Your task to perform on an android device: Open notification settings Image 0: 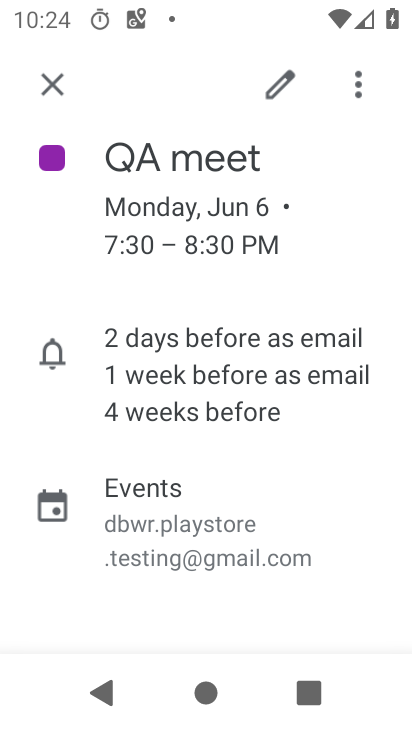
Step 0: press home button
Your task to perform on an android device: Open notification settings Image 1: 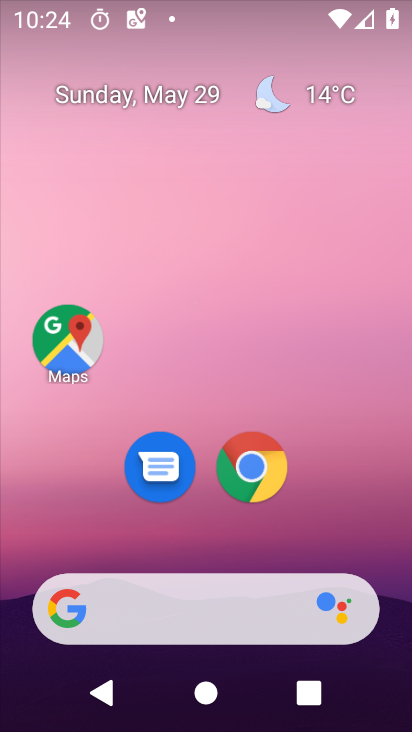
Step 1: drag from (210, 549) to (213, 223)
Your task to perform on an android device: Open notification settings Image 2: 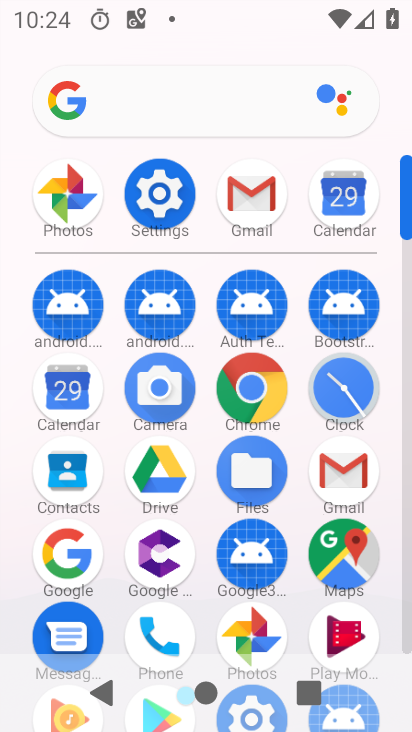
Step 2: click (172, 221)
Your task to perform on an android device: Open notification settings Image 3: 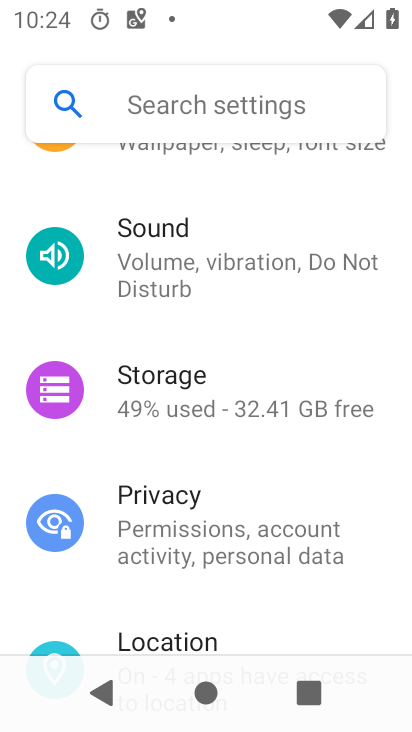
Step 3: drag from (235, 245) to (272, 545)
Your task to perform on an android device: Open notification settings Image 4: 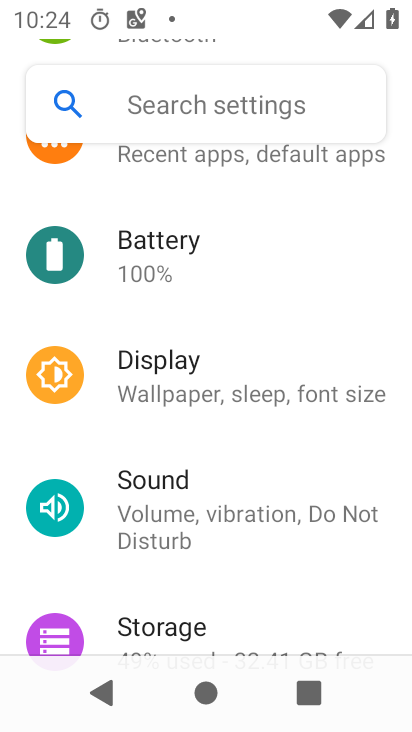
Step 4: drag from (252, 290) to (280, 506)
Your task to perform on an android device: Open notification settings Image 5: 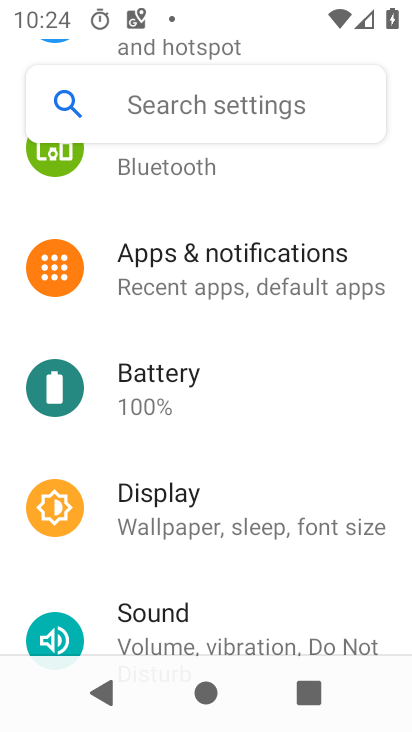
Step 5: click (232, 278)
Your task to perform on an android device: Open notification settings Image 6: 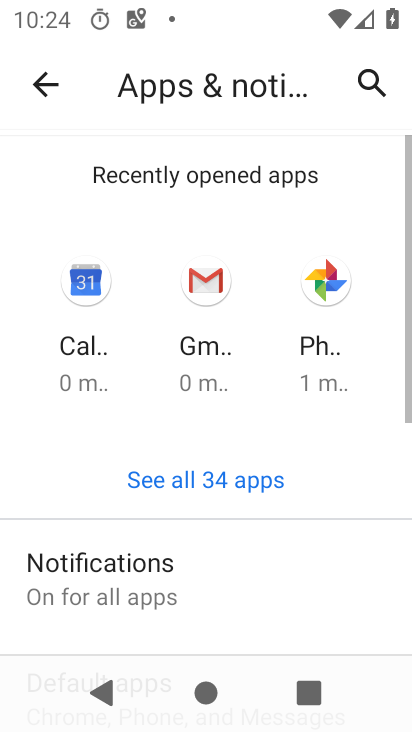
Step 6: click (206, 575)
Your task to perform on an android device: Open notification settings Image 7: 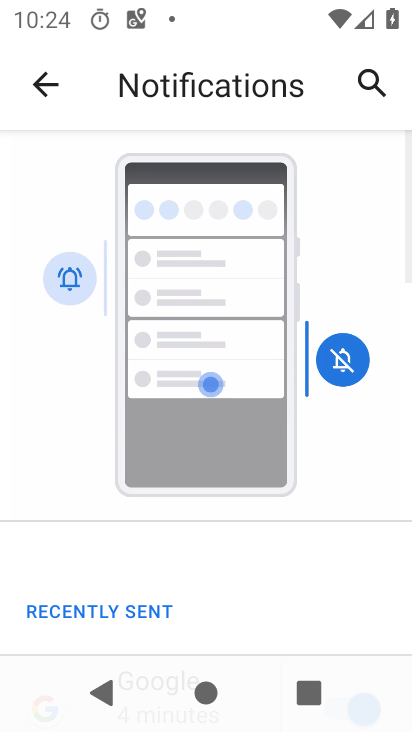
Step 7: task complete